Your task to perform on an android device: Open Google Maps Image 0: 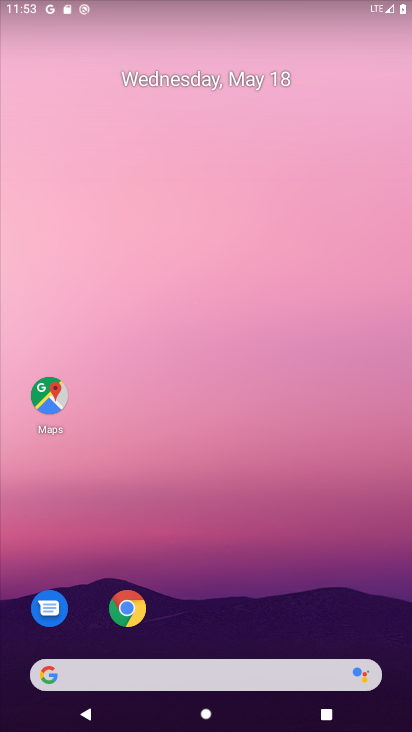
Step 0: click (57, 391)
Your task to perform on an android device: Open Google Maps Image 1: 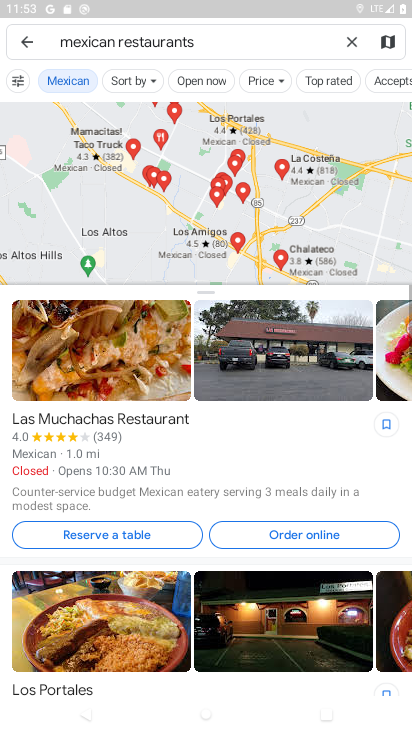
Step 1: task complete